Your task to perform on an android device: Go to Wikipedia Image 0: 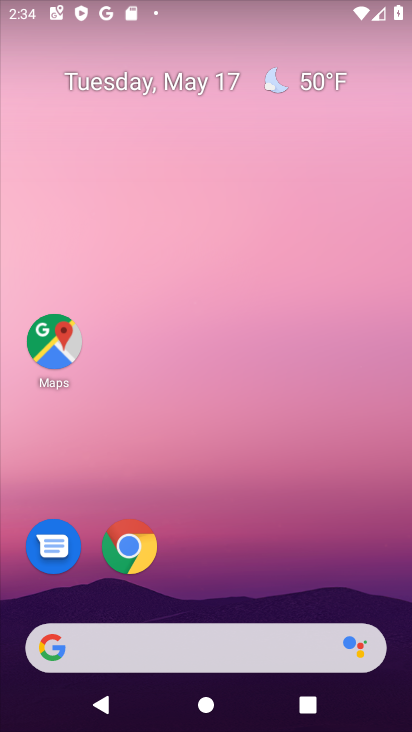
Step 0: click (147, 552)
Your task to perform on an android device: Go to Wikipedia Image 1: 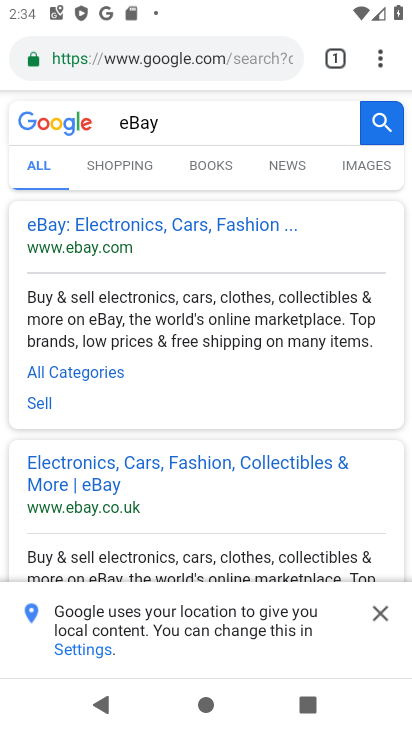
Step 1: click (233, 58)
Your task to perform on an android device: Go to Wikipedia Image 2: 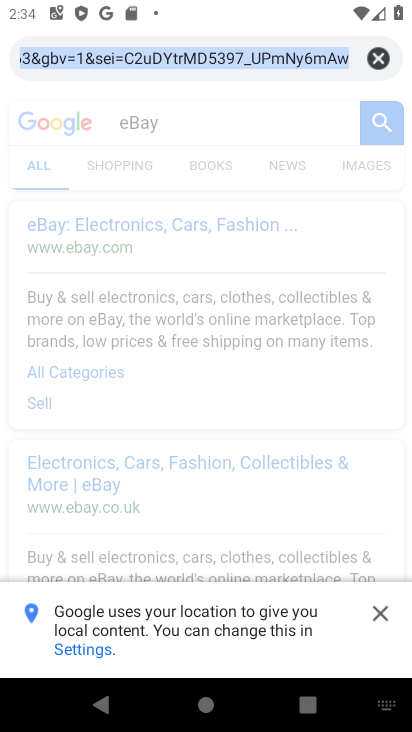
Step 2: type "wikipedia"
Your task to perform on an android device: Go to Wikipedia Image 3: 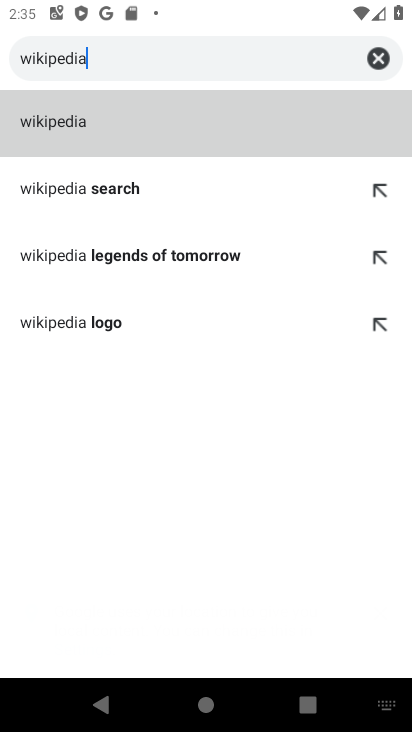
Step 3: click (108, 129)
Your task to perform on an android device: Go to Wikipedia Image 4: 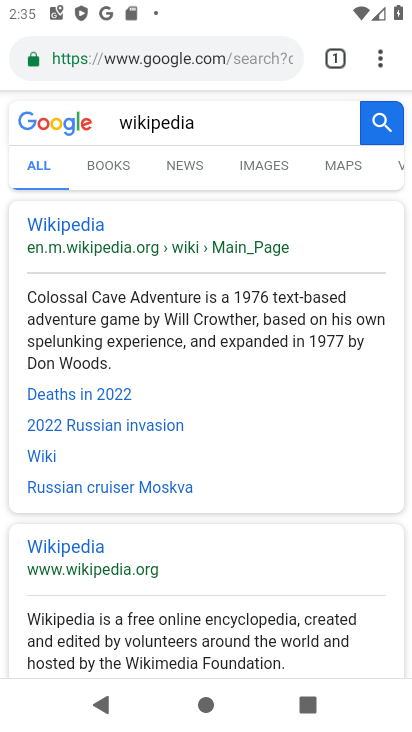
Step 4: task complete